Your task to perform on an android device: Open network settings Image 0: 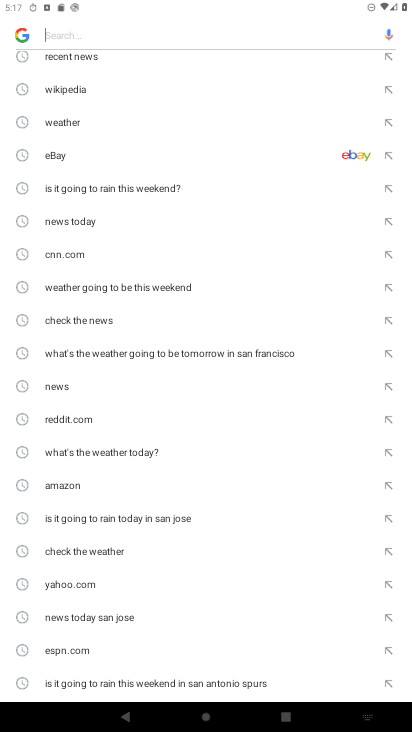
Step 0: press home button
Your task to perform on an android device: Open network settings Image 1: 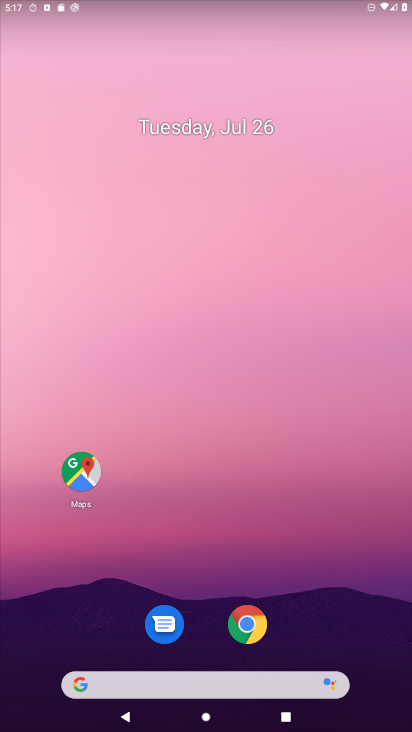
Step 1: drag from (244, 676) to (217, 2)
Your task to perform on an android device: Open network settings Image 2: 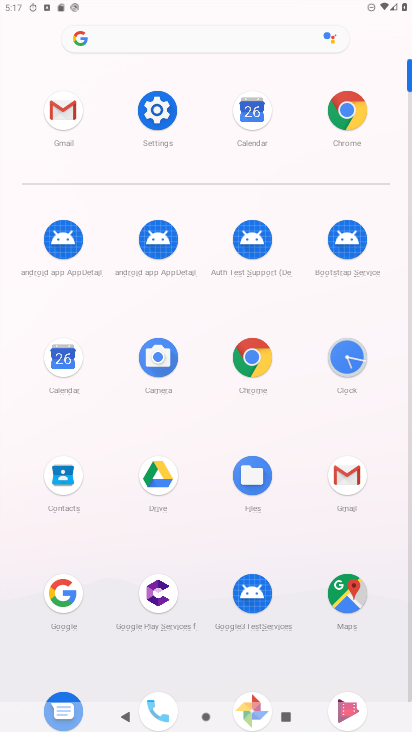
Step 2: click (162, 107)
Your task to perform on an android device: Open network settings Image 3: 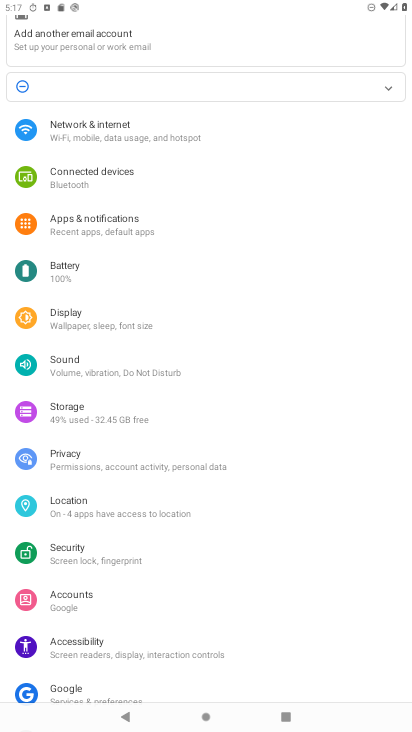
Step 3: click (191, 132)
Your task to perform on an android device: Open network settings Image 4: 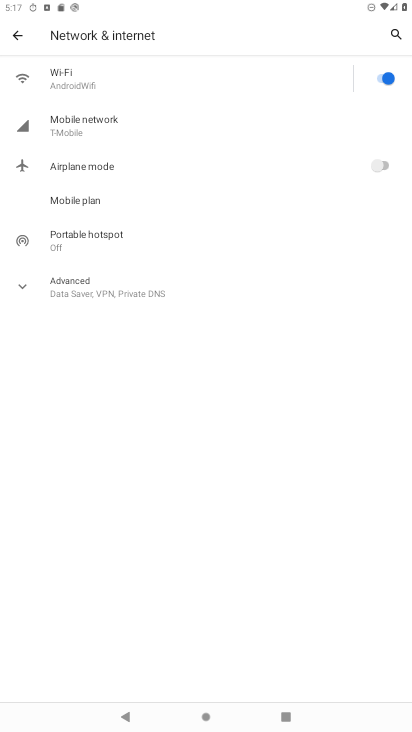
Step 4: click (104, 112)
Your task to perform on an android device: Open network settings Image 5: 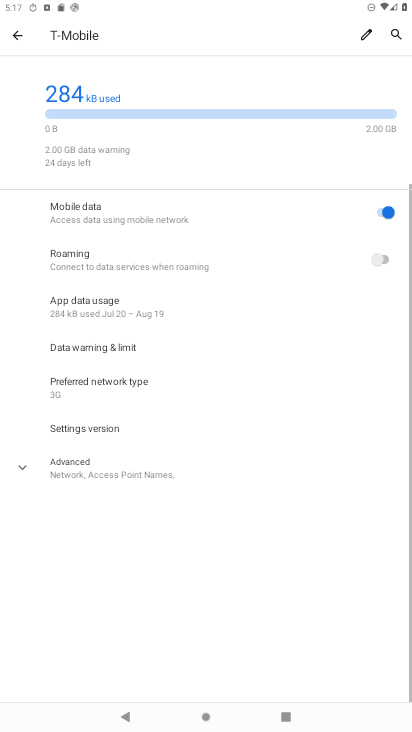
Step 5: task complete